Your task to perform on an android device: Add "logitech g933" to the cart on costco Image 0: 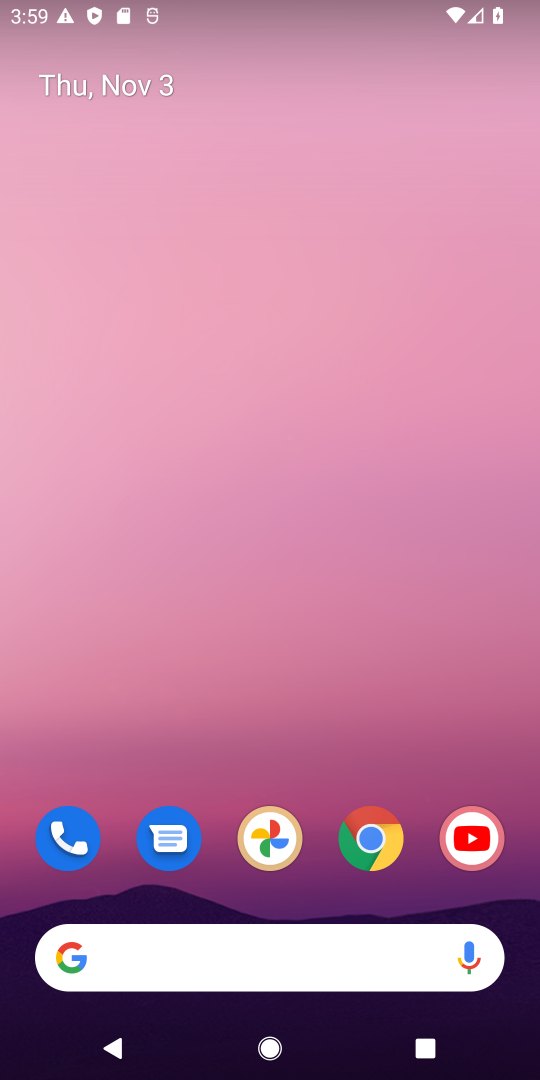
Step 0: drag from (371, 1031) to (190, 144)
Your task to perform on an android device: Add "logitech g933" to the cart on costco Image 1: 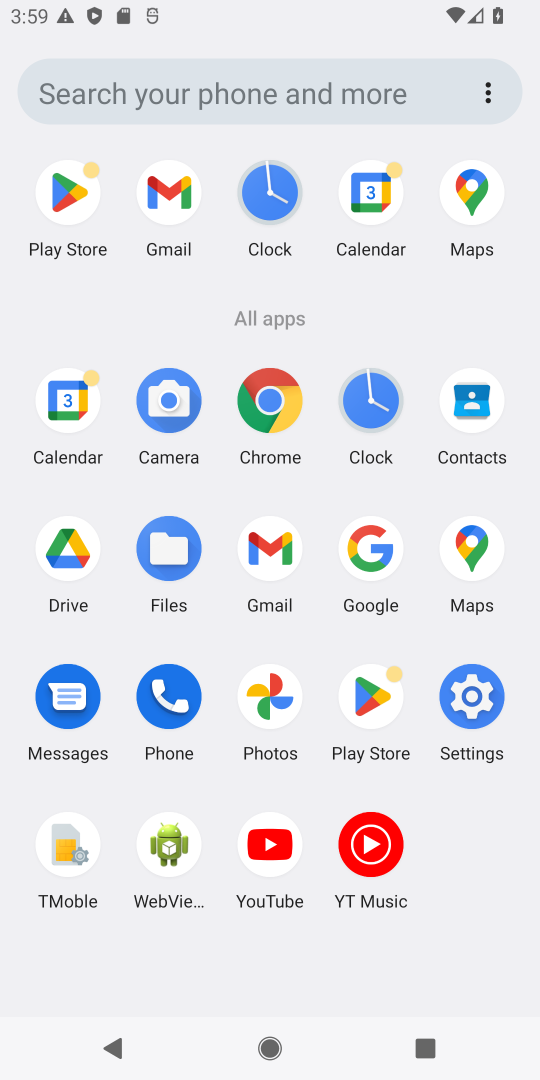
Step 1: click (268, 399)
Your task to perform on an android device: Add "logitech g933" to the cart on costco Image 2: 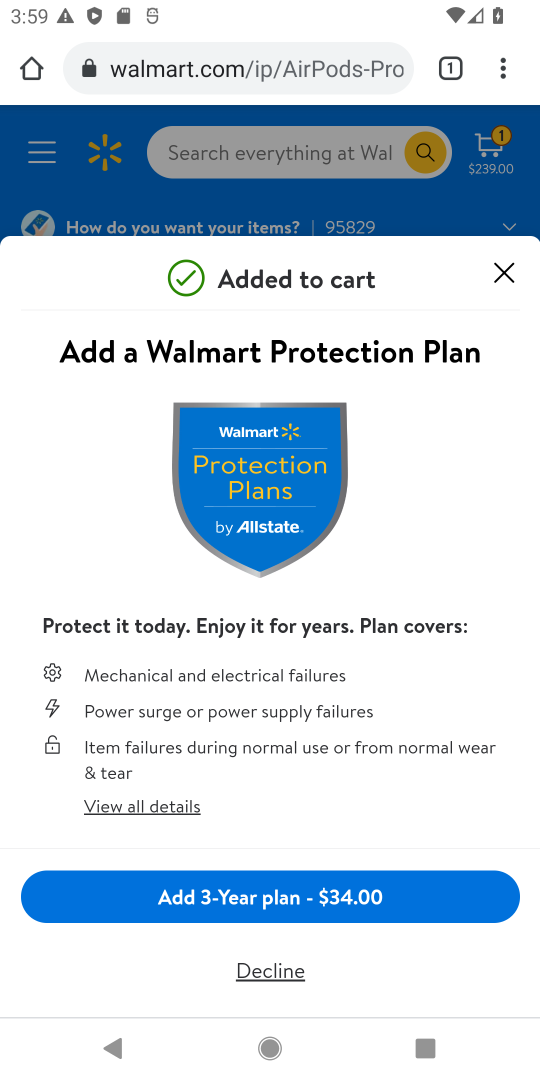
Step 2: press home button
Your task to perform on an android device: Add "logitech g933" to the cart on costco Image 3: 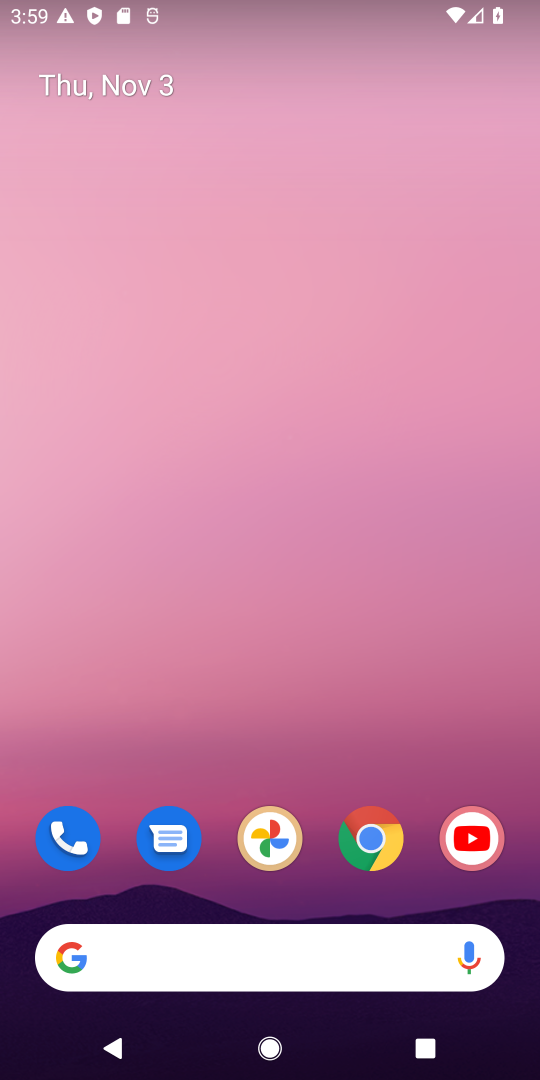
Step 3: drag from (356, 1018) to (277, 83)
Your task to perform on an android device: Add "logitech g933" to the cart on costco Image 4: 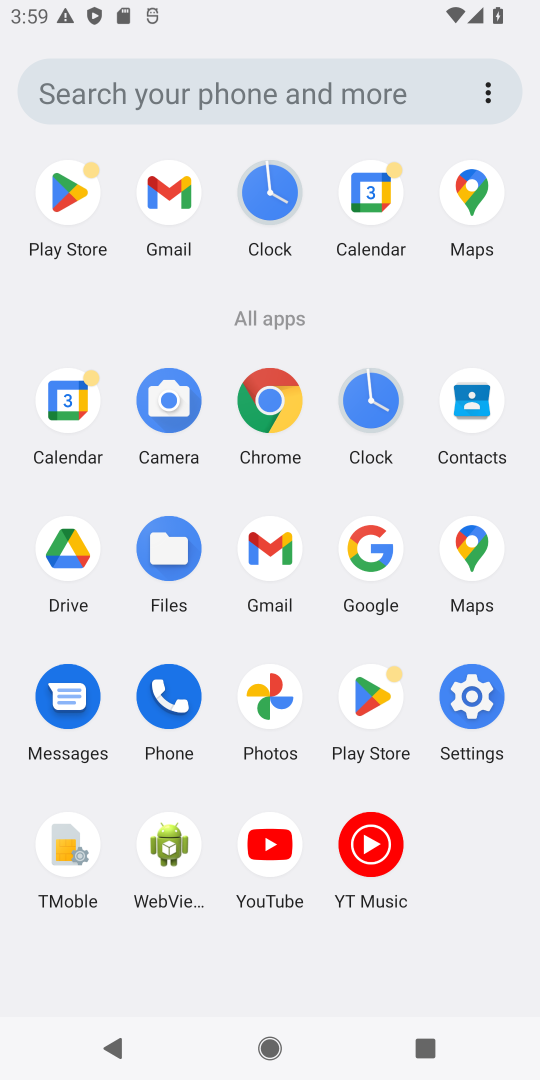
Step 4: click (275, 387)
Your task to perform on an android device: Add "logitech g933" to the cart on costco Image 5: 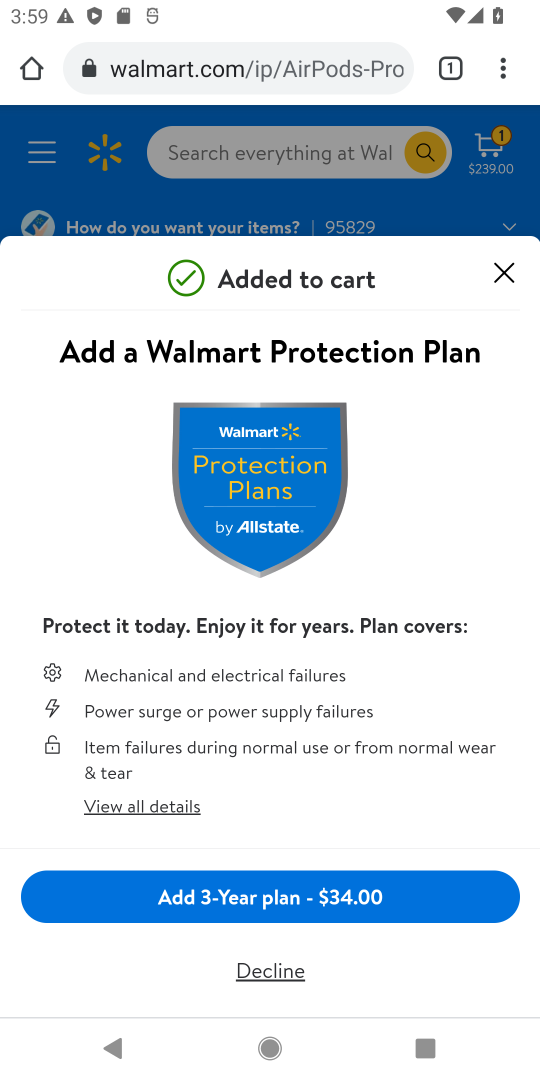
Step 5: click (219, 67)
Your task to perform on an android device: Add "logitech g933" to the cart on costco Image 6: 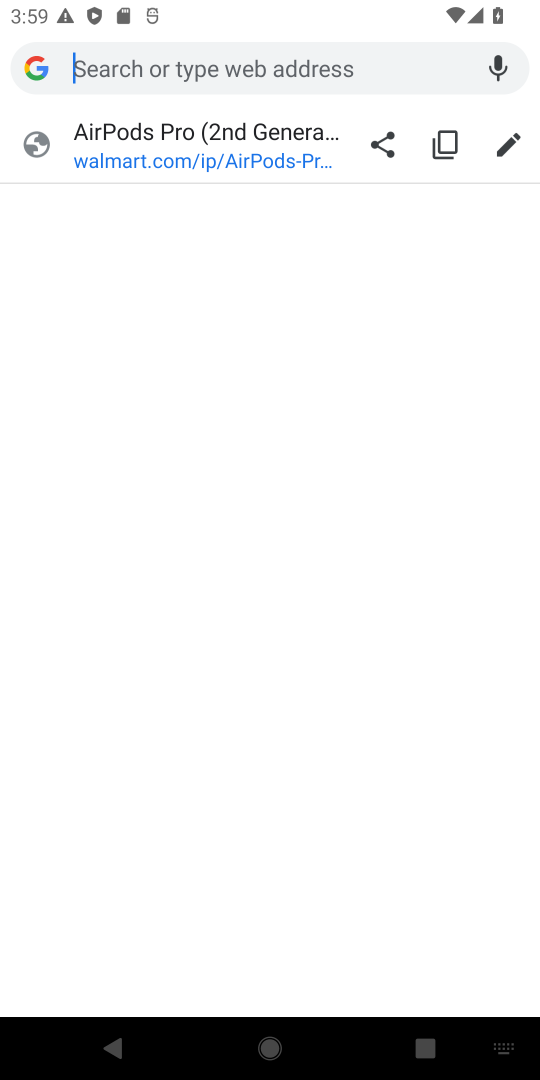
Step 6: type "costco"
Your task to perform on an android device: Add "logitech g933" to the cart on costco Image 7: 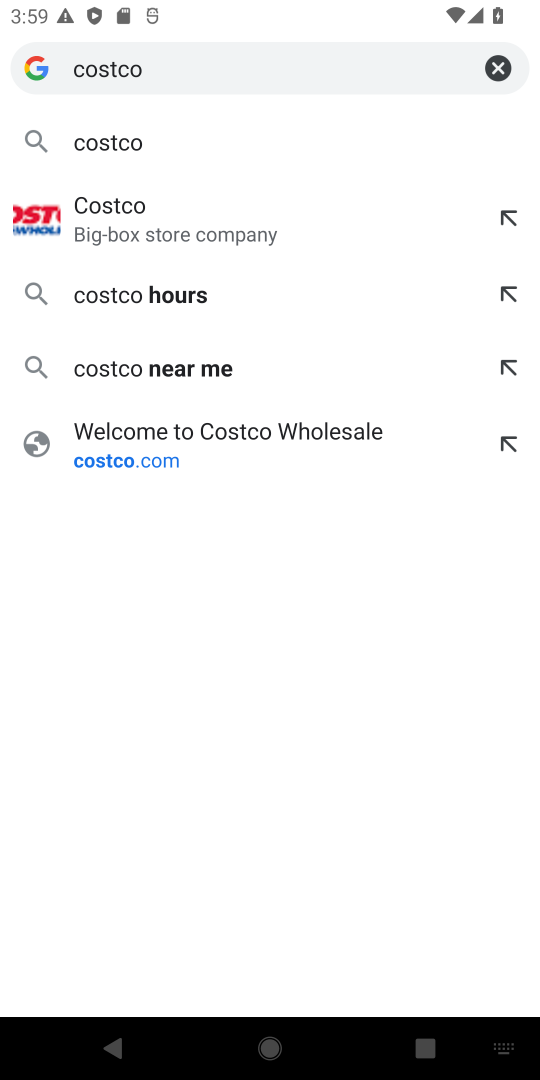
Step 7: click (98, 137)
Your task to perform on an android device: Add "logitech g933" to the cart on costco Image 8: 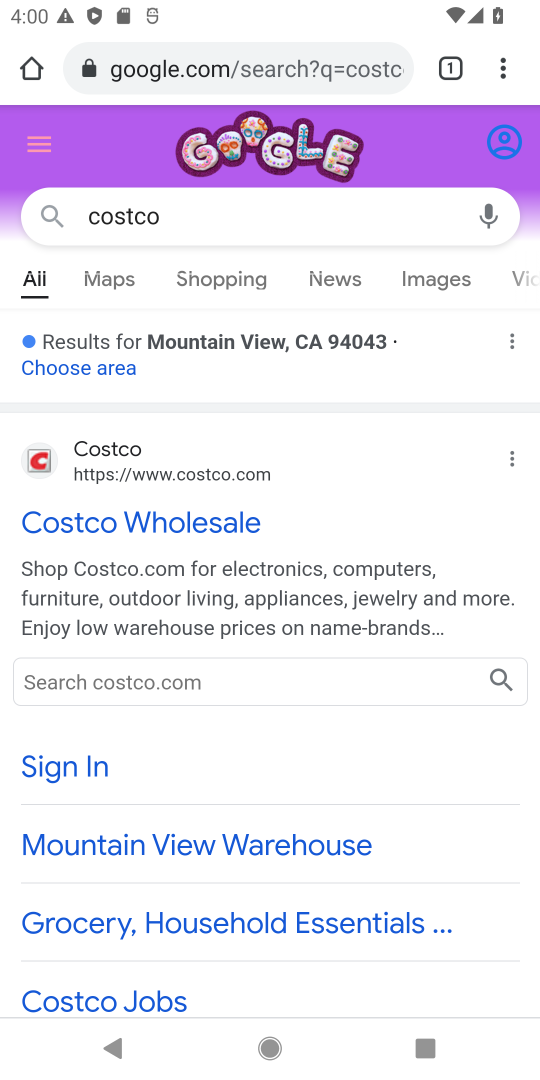
Step 8: click (78, 519)
Your task to perform on an android device: Add "logitech g933" to the cart on costco Image 9: 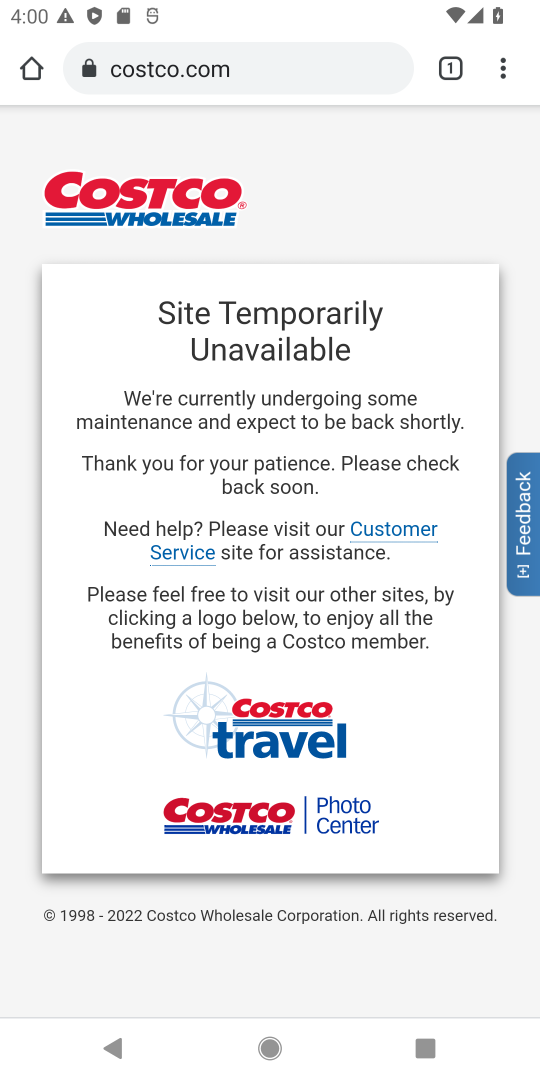
Step 9: task complete